Your task to perform on an android device: Check the news Image 0: 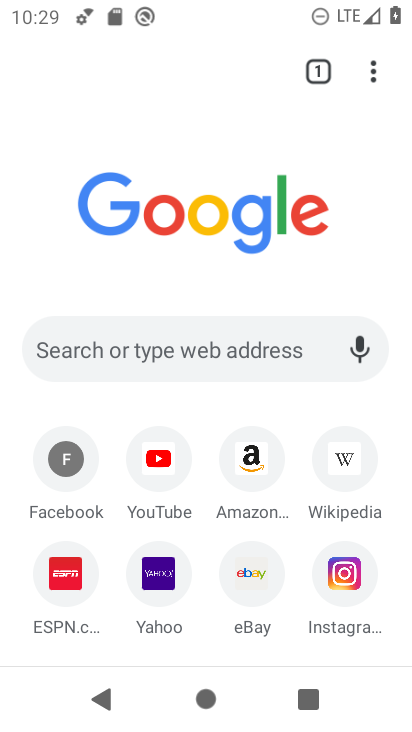
Step 0: press home button
Your task to perform on an android device: Check the news Image 1: 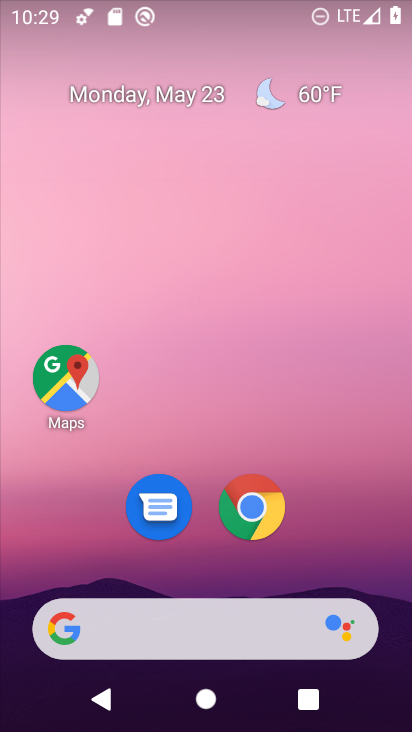
Step 1: drag from (333, 545) to (263, 112)
Your task to perform on an android device: Check the news Image 2: 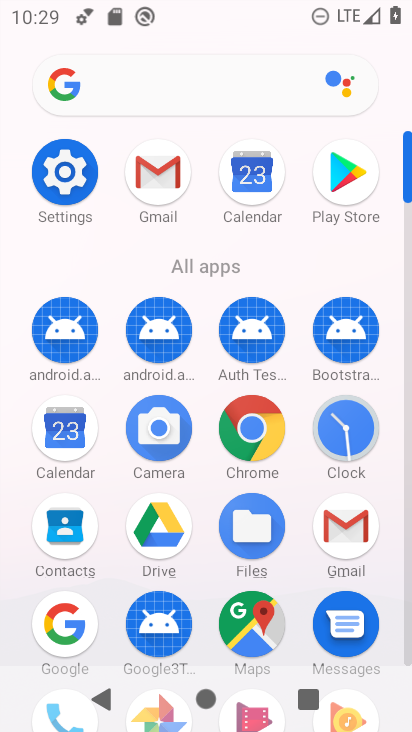
Step 2: click (60, 628)
Your task to perform on an android device: Check the news Image 3: 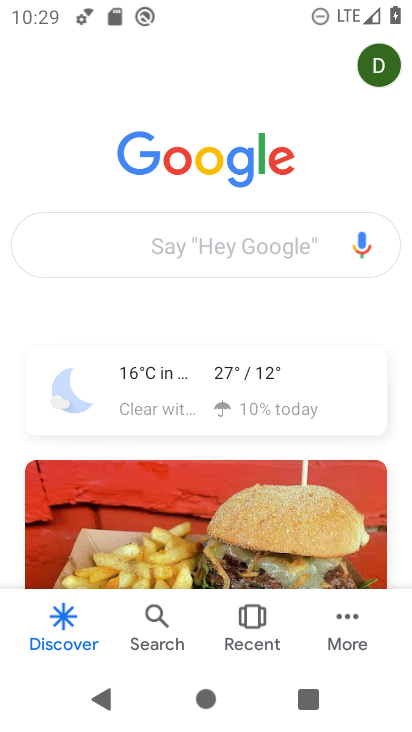
Step 3: click (205, 241)
Your task to perform on an android device: Check the news Image 4: 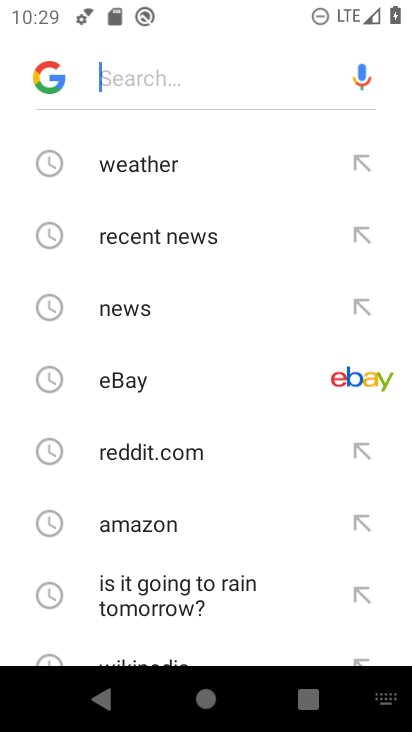
Step 4: type "news"
Your task to perform on an android device: Check the news Image 5: 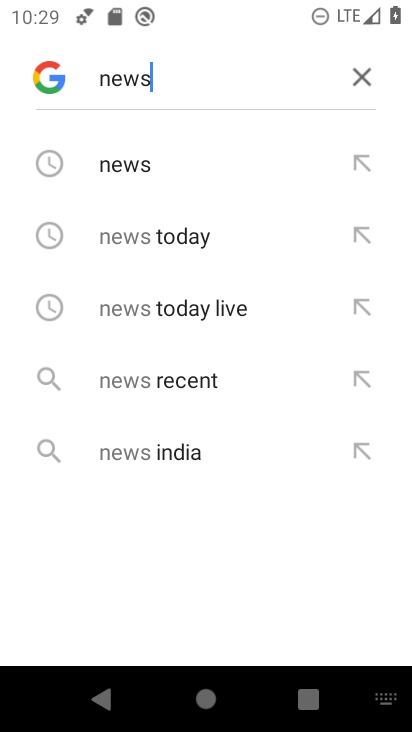
Step 5: click (120, 168)
Your task to perform on an android device: Check the news Image 6: 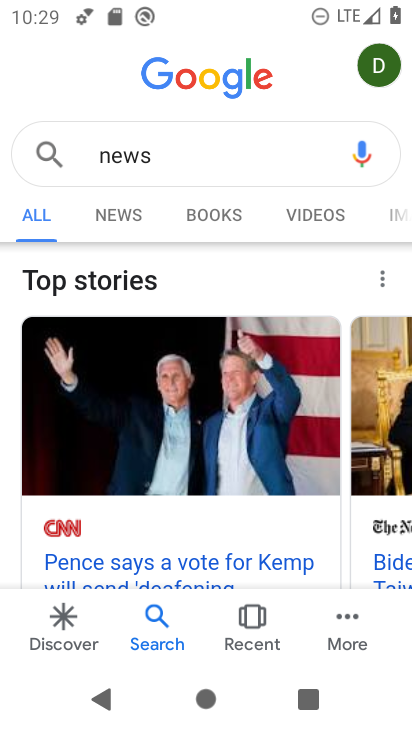
Step 6: task complete